Your task to perform on an android device: Open Google Chrome Image 0: 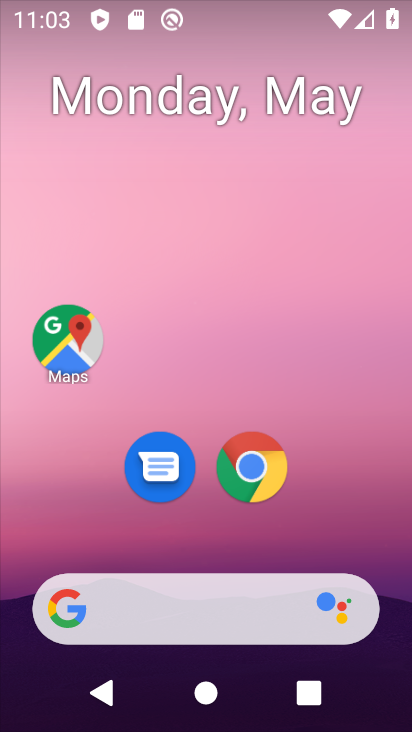
Step 0: click (285, 524)
Your task to perform on an android device: Open Google Chrome Image 1: 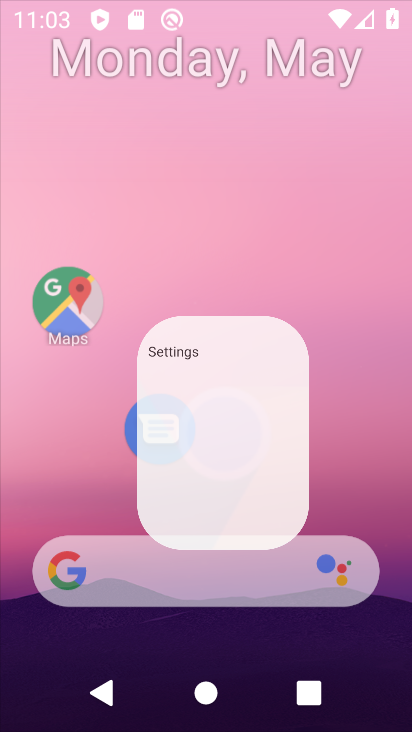
Step 1: click (263, 477)
Your task to perform on an android device: Open Google Chrome Image 2: 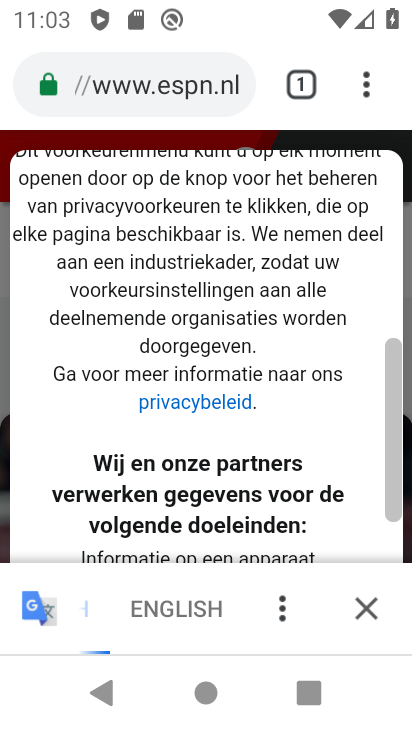
Step 2: task complete